Your task to perform on an android device: Go to calendar. Show me events next week Image 0: 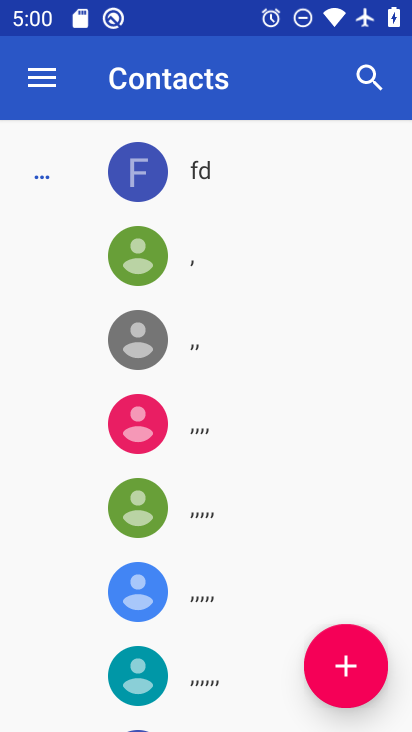
Step 0: press home button
Your task to perform on an android device: Go to calendar. Show me events next week Image 1: 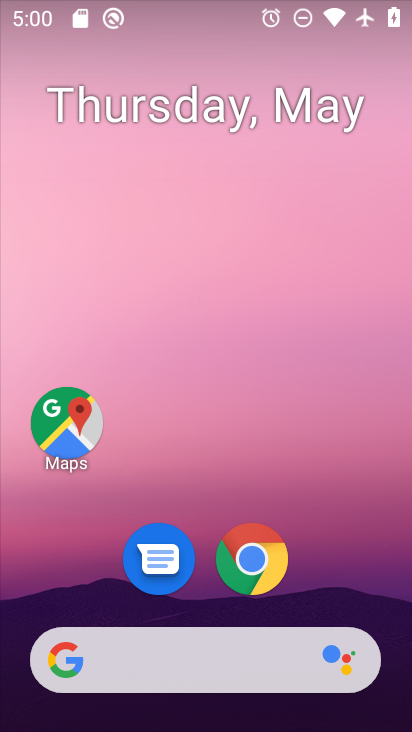
Step 1: click (217, 101)
Your task to perform on an android device: Go to calendar. Show me events next week Image 2: 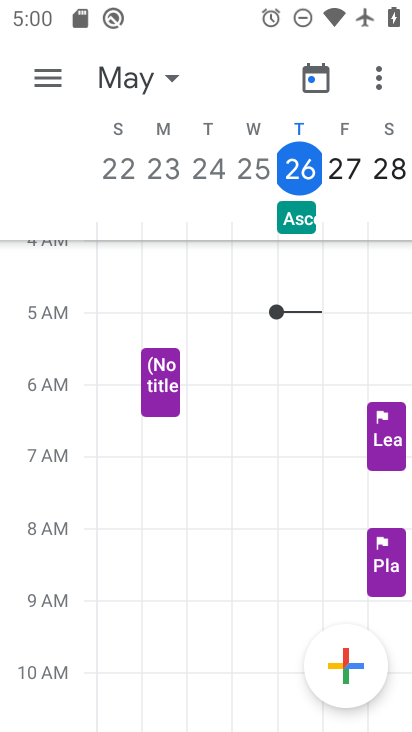
Step 2: task complete